Your task to perform on an android device: open app "Flipkart Online Shopping App" Image 0: 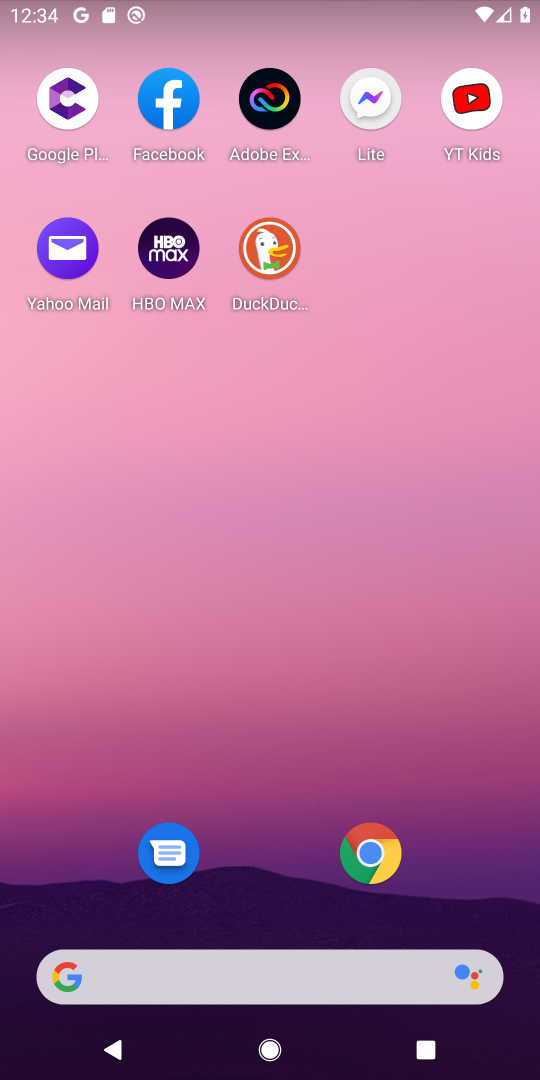
Step 0: drag from (485, 906) to (452, 52)
Your task to perform on an android device: open app "Flipkart Online Shopping App" Image 1: 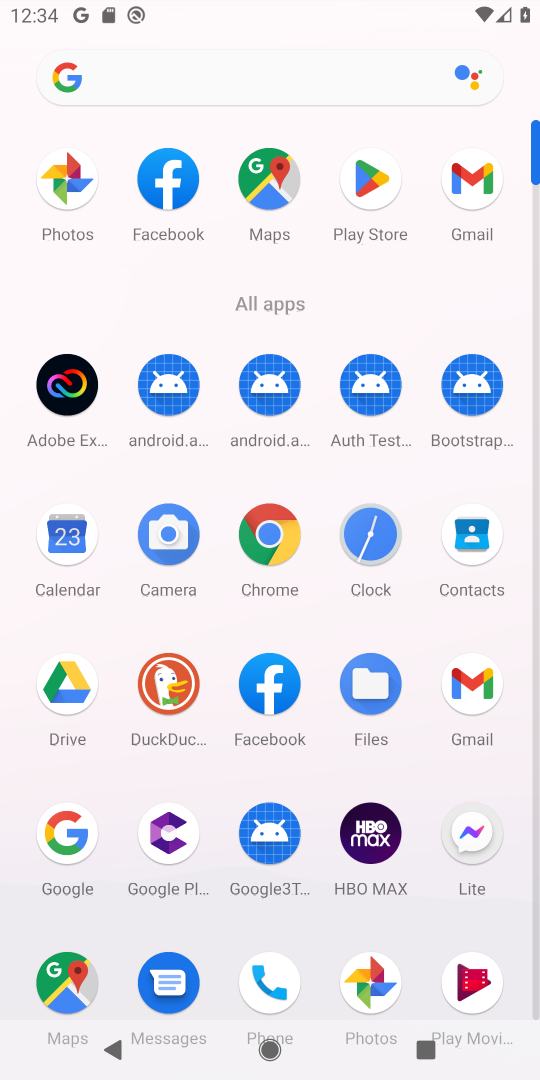
Step 1: drag from (320, 928) to (338, 441)
Your task to perform on an android device: open app "Flipkart Online Shopping App" Image 2: 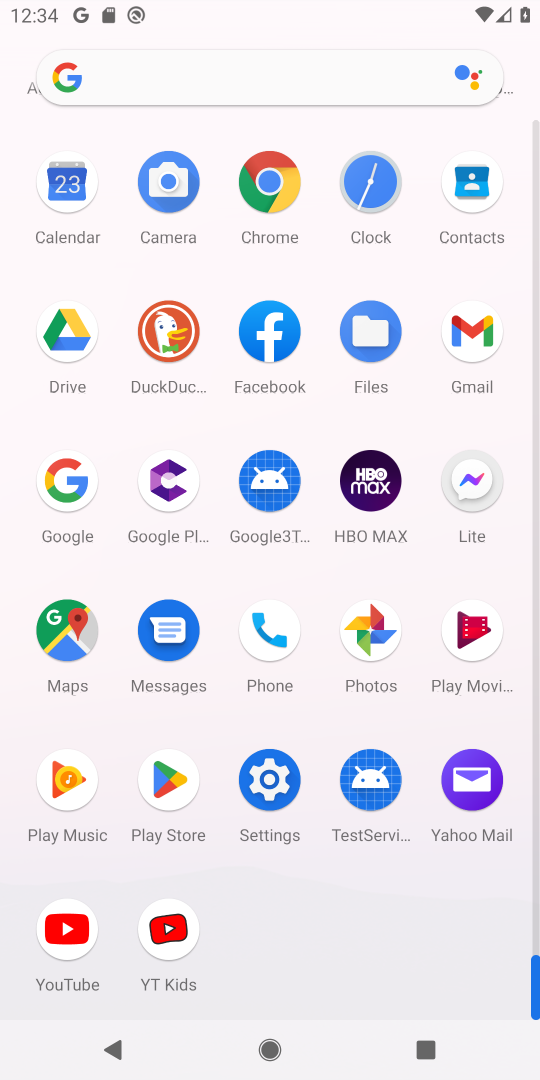
Step 2: click (167, 776)
Your task to perform on an android device: open app "Flipkart Online Shopping App" Image 3: 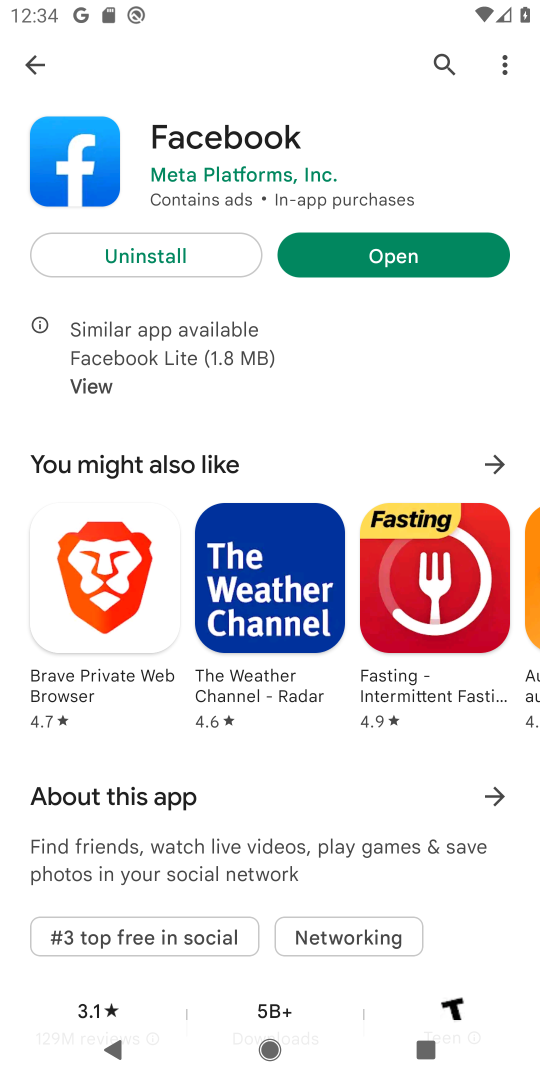
Step 3: click (446, 61)
Your task to perform on an android device: open app "Flipkart Online Shopping App" Image 4: 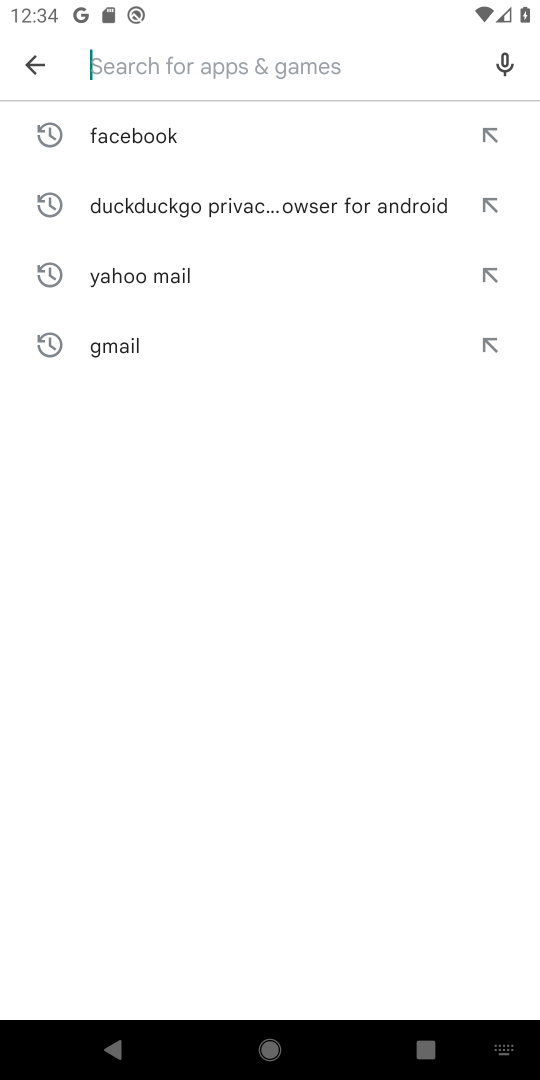
Step 4: type "Flipkart Online Shopping App"
Your task to perform on an android device: open app "Flipkart Online Shopping App" Image 5: 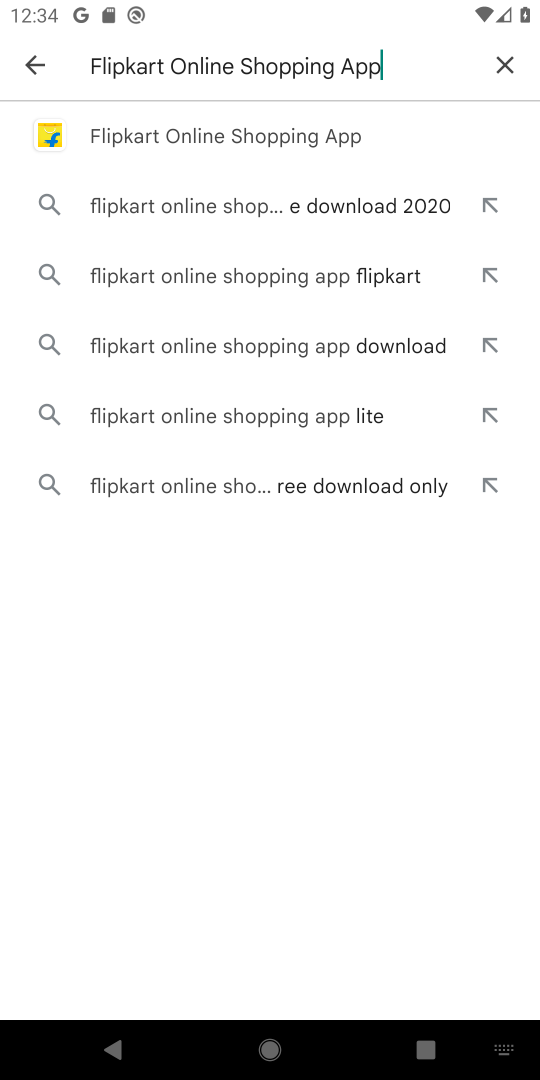
Step 5: click (176, 122)
Your task to perform on an android device: open app "Flipkart Online Shopping App" Image 6: 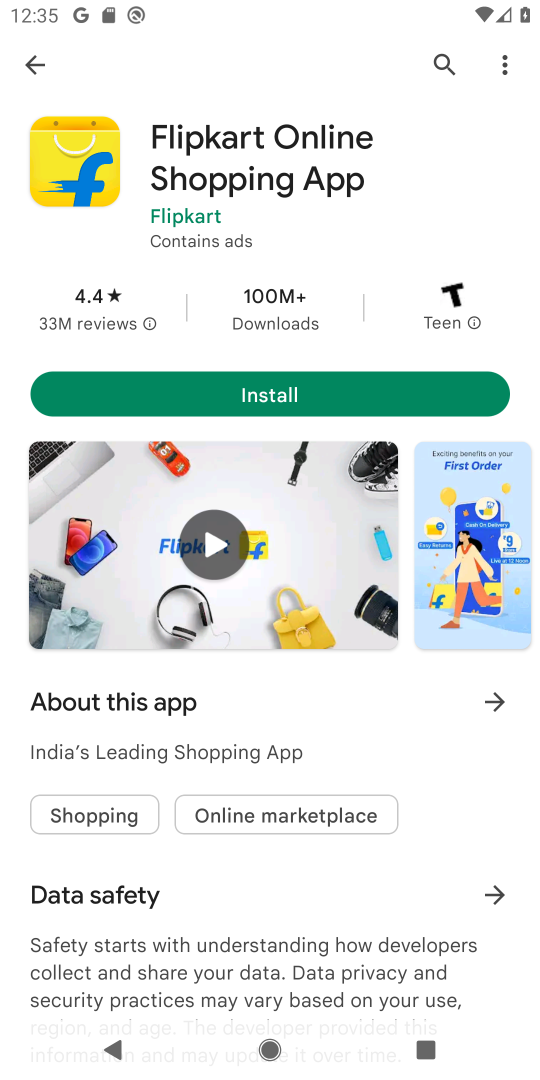
Step 6: task complete